Your task to perform on an android device: show emergency info Image 0: 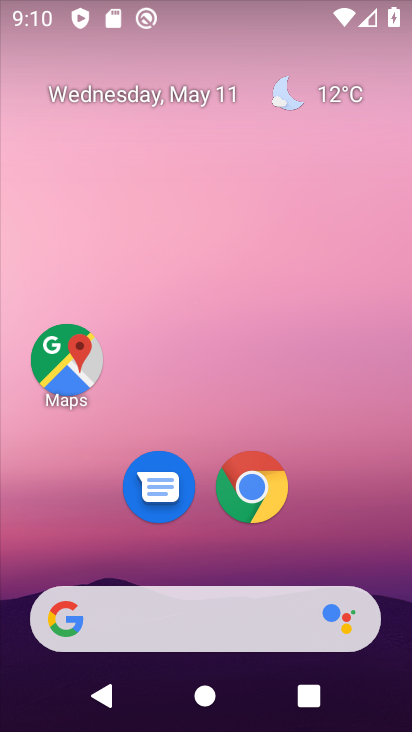
Step 0: drag from (327, 354) to (340, 50)
Your task to perform on an android device: show emergency info Image 1: 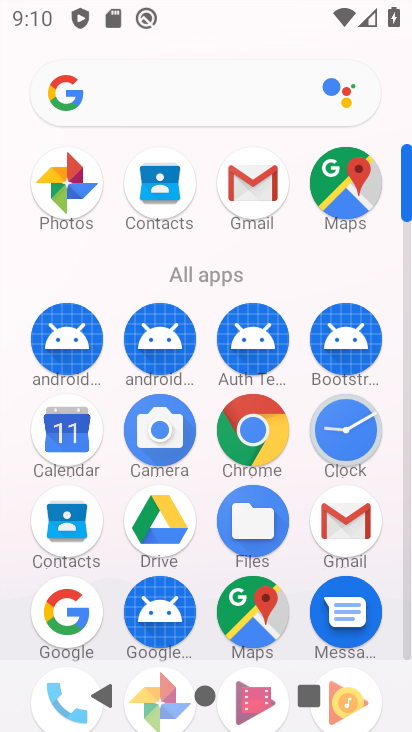
Step 1: drag from (199, 509) to (229, 240)
Your task to perform on an android device: show emergency info Image 2: 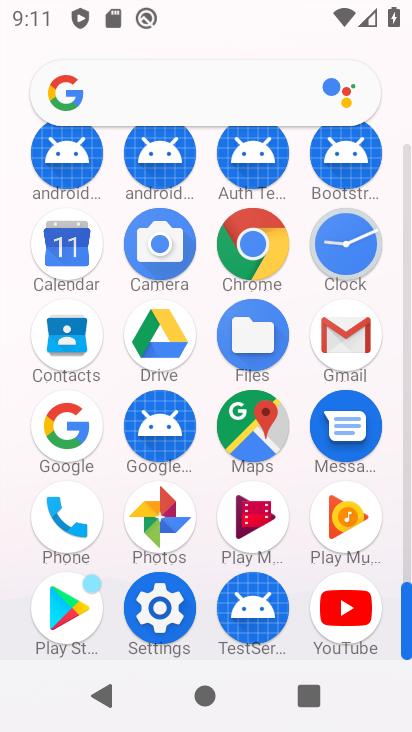
Step 2: click (157, 607)
Your task to perform on an android device: show emergency info Image 3: 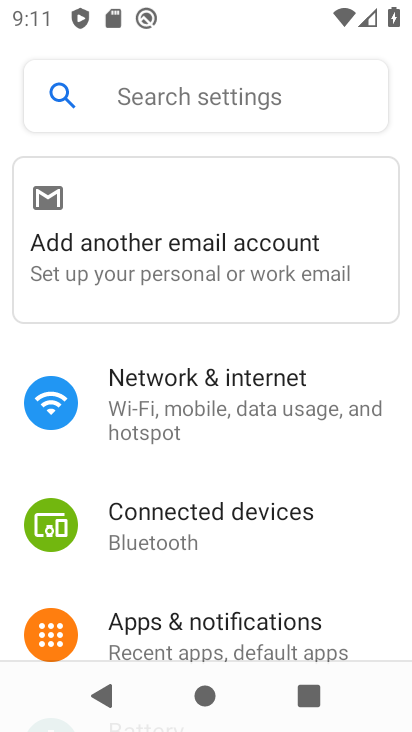
Step 3: drag from (201, 550) to (275, 396)
Your task to perform on an android device: show emergency info Image 4: 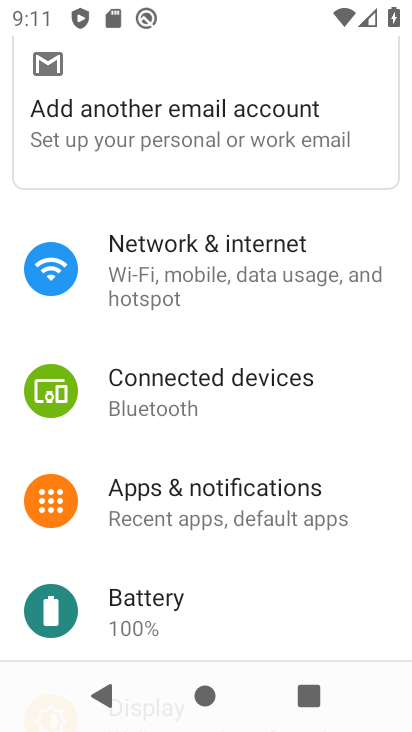
Step 4: drag from (214, 577) to (274, 466)
Your task to perform on an android device: show emergency info Image 5: 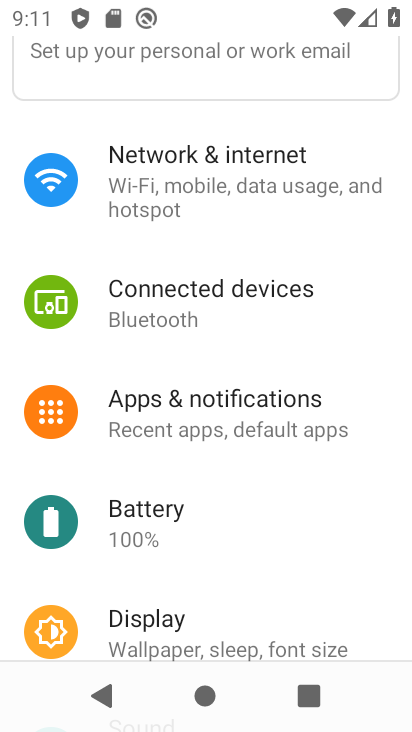
Step 5: drag from (217, 581) to (292, 447)
Your task to perform on an android device: show emergency info Image 6: 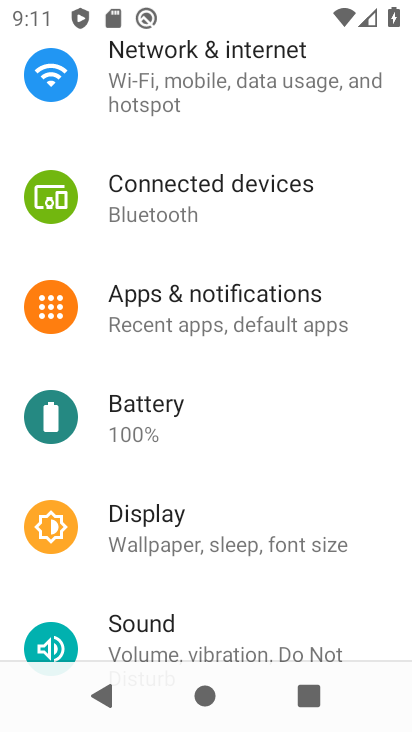
Step 6: drag from (258, 572) to (344, 416)
Your task to perform on an android device: show emergency info Image 7: 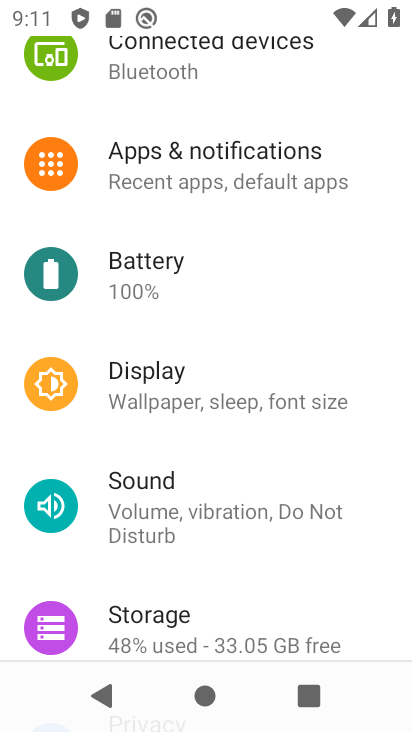
Step 7: drag from (249, 577) to (314, 438)
Your task to perform on an android device: show emergency info Image 8: 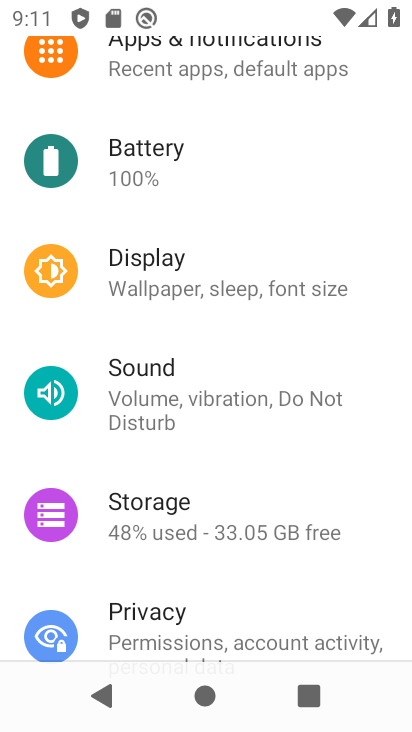
Step 8: drag from (251, 571) to (349, 407)
Your task to perform on an android device: show emergency info Image 9: 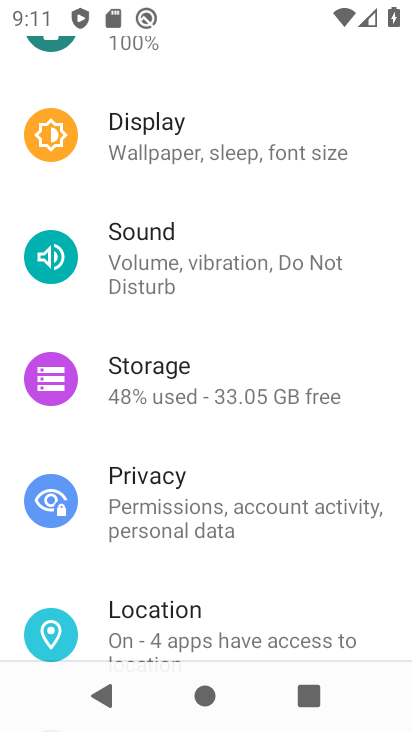
Step 9: drag from (258, 562) to (300, 373)
Your task to perform on an android device: show emergency info Image 10: 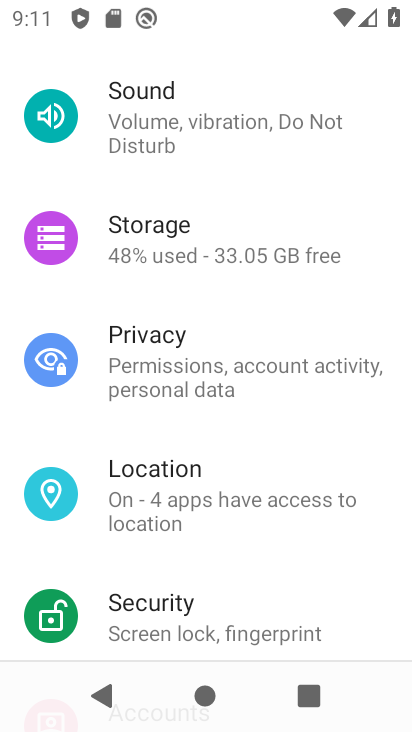
Step 10: drag from (193, 535) to (232, 426)
Your task to perform on an android device: show emergency info Image 11: 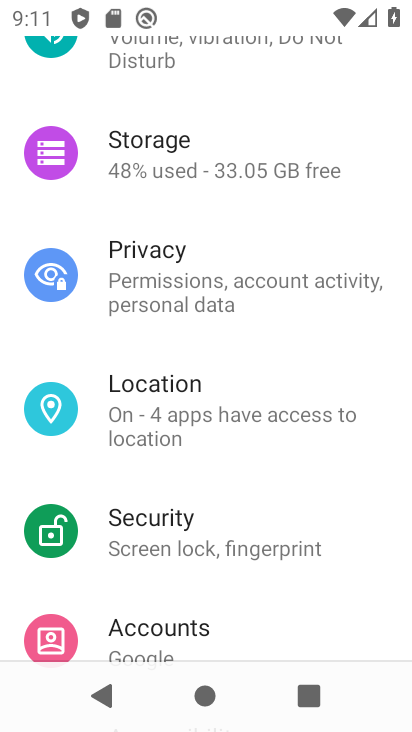
Step 11: drag from (164, 584) to (229, 432)
Your task to perform on an android device: show emergency info Image 12: 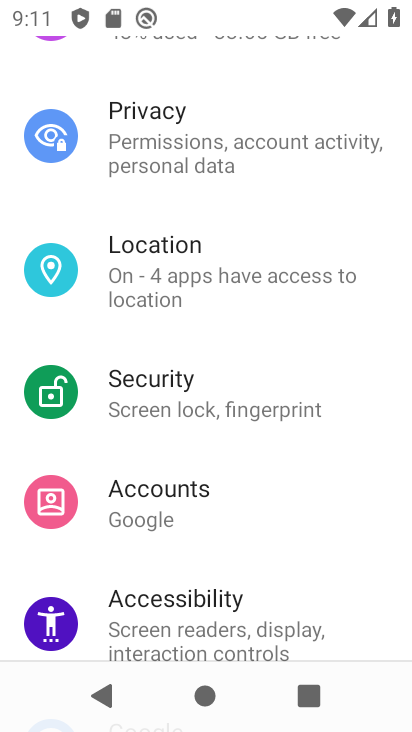
Step 12: drag from (159, 541) to (254, 387)
Your task to perform on an android device: show emergency info Image 13: 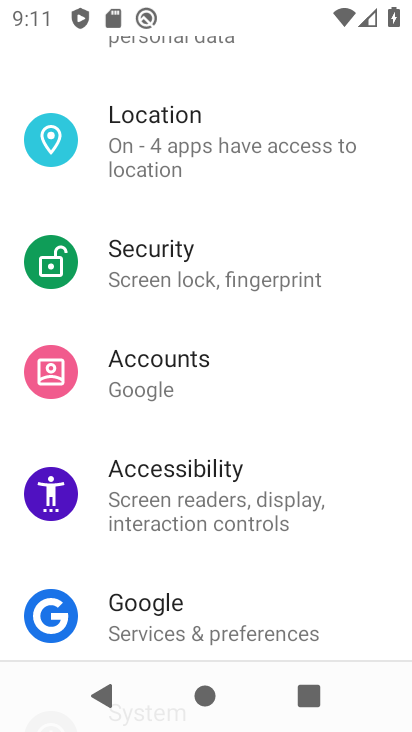
Step 13: drag from (137, 544) to (210, 396)
Your task to perform on an android device: show emergency info Image 14: 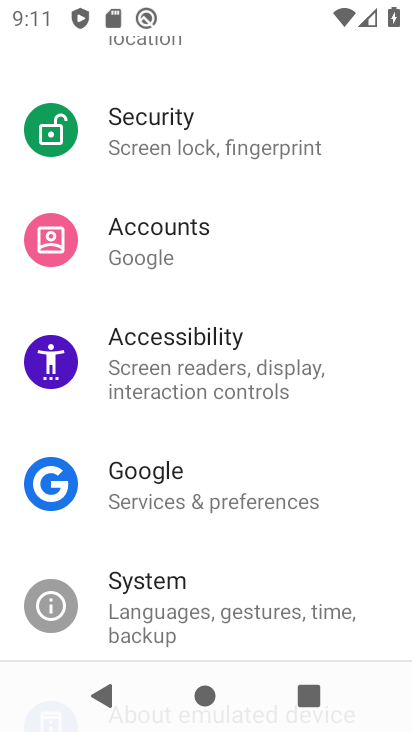
Step 14: drag from (141, 541) to (219, 410)
Your task to perform on an android device: show emergency info Image 15: 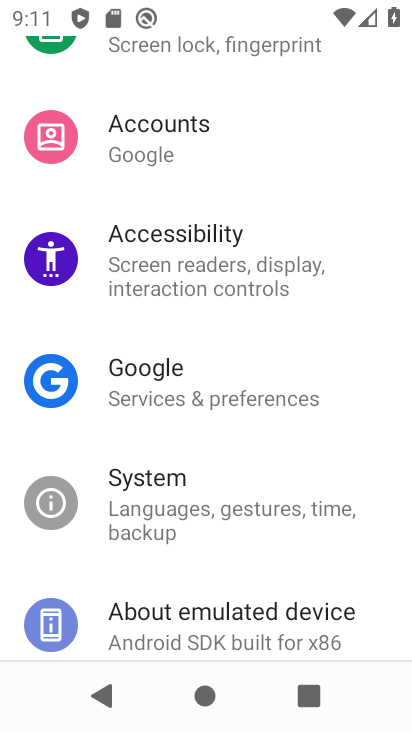
Step 15: click (179, 616)
Your task to perform on an android device: show emergency info Image 16: 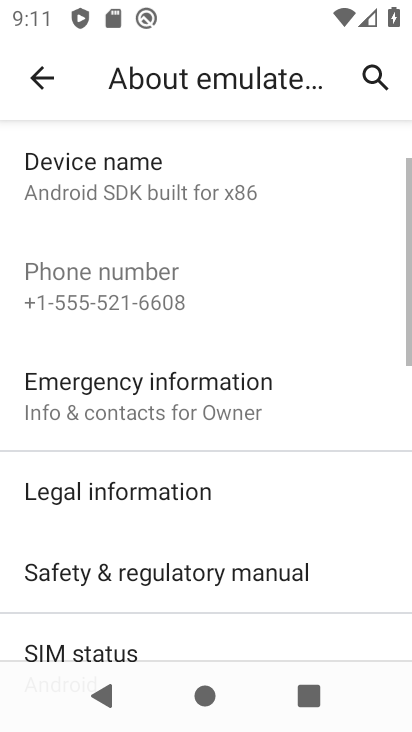
Step 16: click (156, 381)
Your task to perform on an android device: show emergency info Image 17: 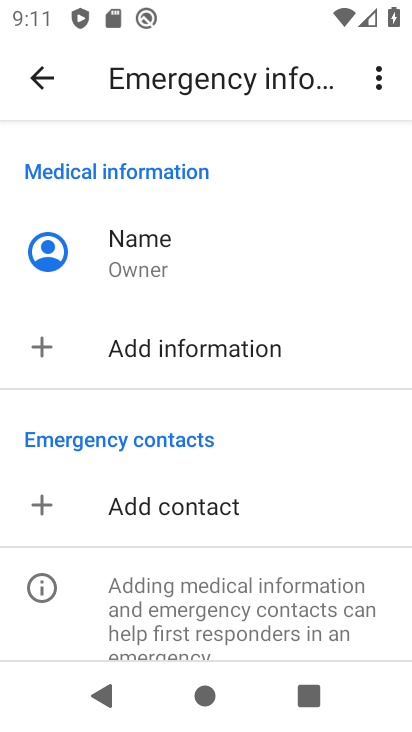
Step 17: task complete